Your task to perform on an android device: delete a single message in the gmail app Image 0: 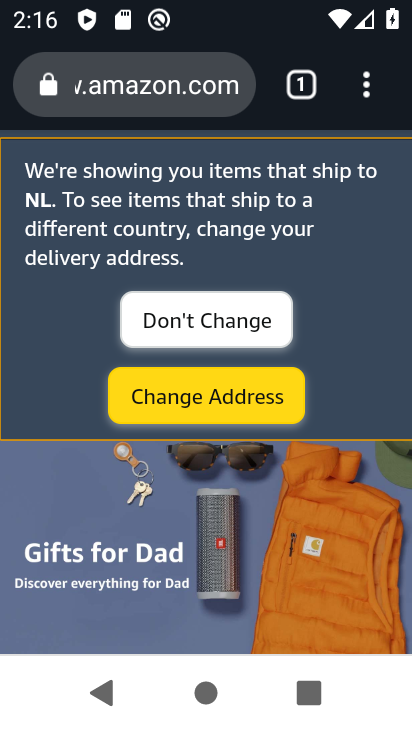
Step 0: press home button
Your task to perform on an android device: delete a single message in the gmail app Image 1: 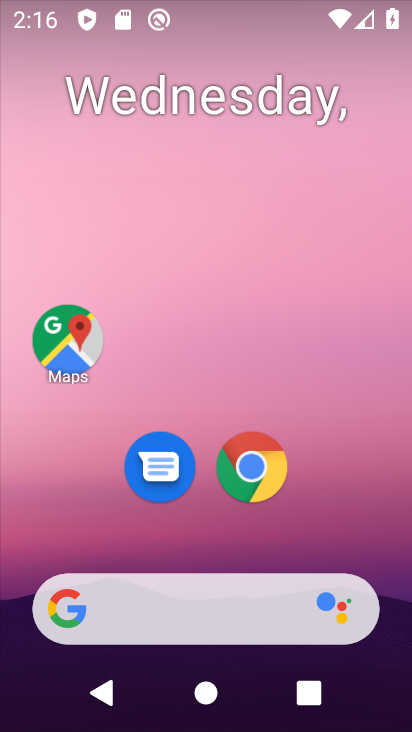
Step 1: drag from (187, 587) to (327, 120)
Your task to perform on an android device: delete a single message in the gmail app Image 2: 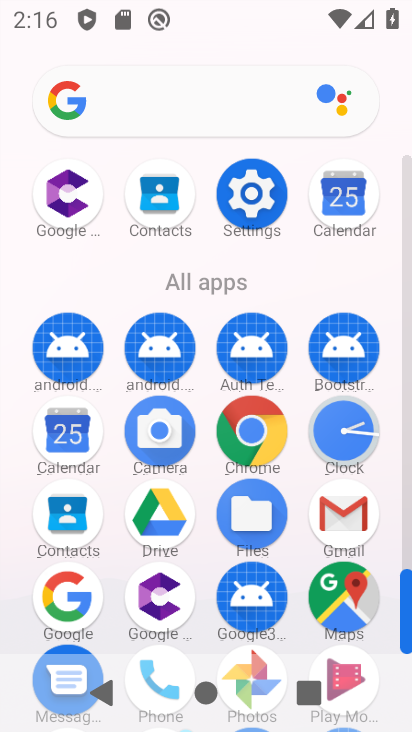
Step 2: click (344, 534)
Your task to perform on an android device: delete a single message in the gmail app Image 3: 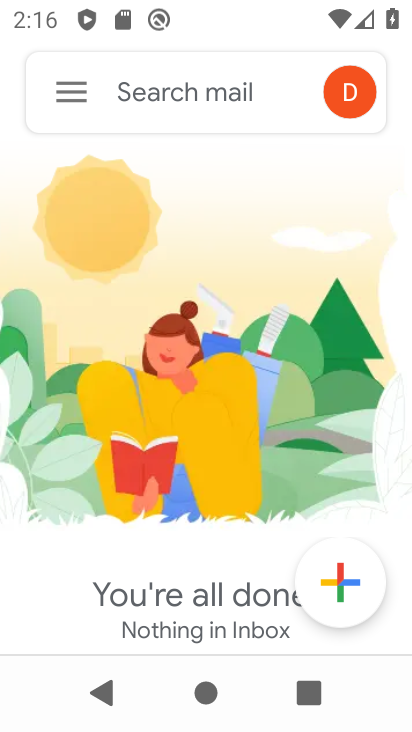
Step 3: task complete